Your task to perform on an android device: Search for Mexican restaurants on Maps Image 0: 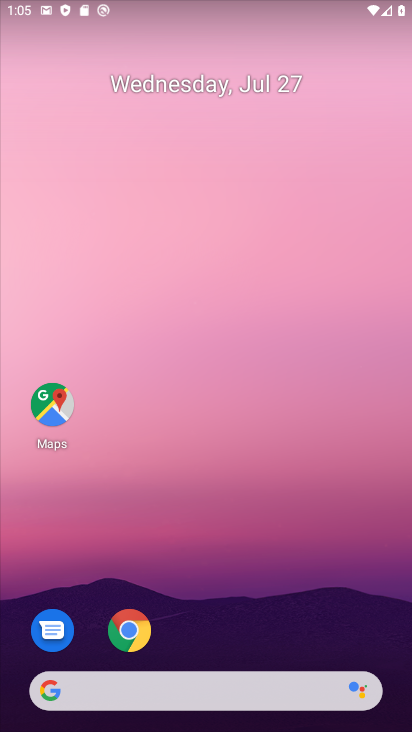
Step 0: drag from (379, 513) to (305, 70)
Your task to perform on an android device: Search for Mexican restaurants on Maps Image 1: 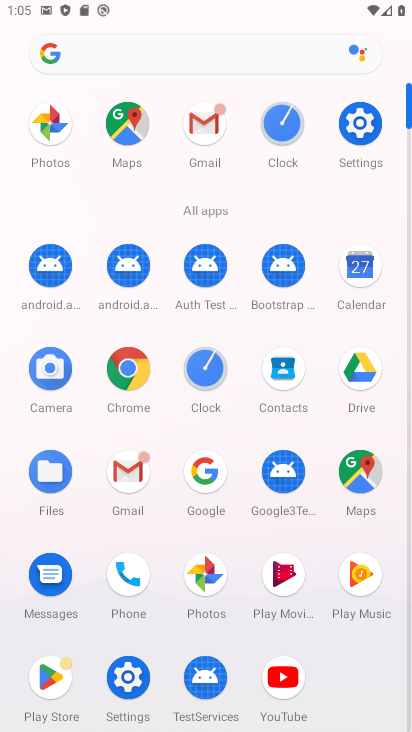
Step 1: click (367, 478)
Your task to perform on an android device: Search for Mexican restaurants on Maps Image 2: 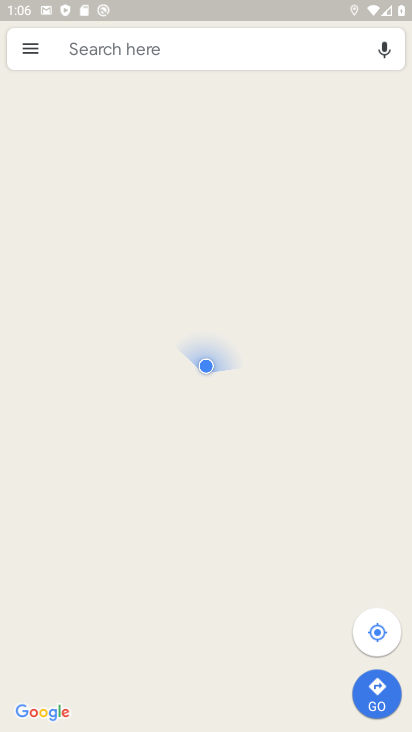
Step 2: click (89, 48)
Your task to perform on an android device: Search for Mexican restaurants on Maps Image 3: 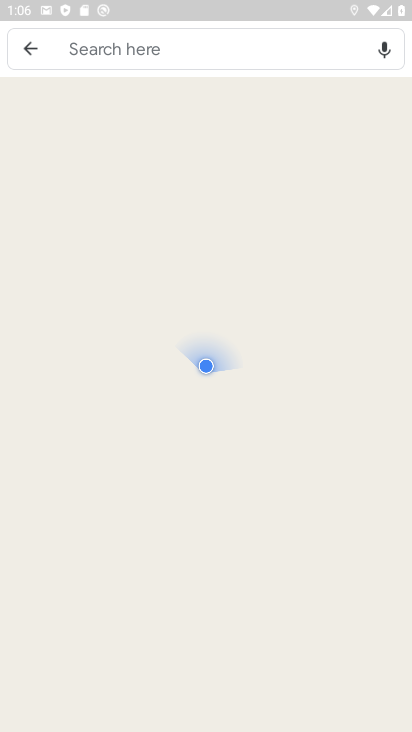
Step 3: click (123, 43)
Your task to perform on an android device: Search for Mexican restaurants on Maps Image 4: 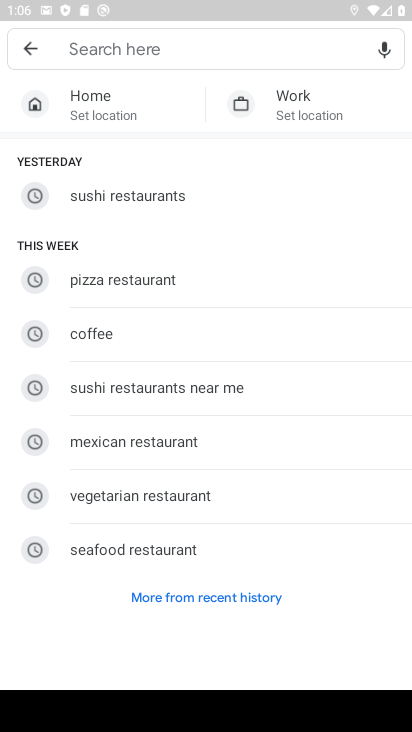
Step 4: type "Mexican restaurants"
Your task to perform on an android device: Search for Mexican restaurants on Maps Image 5: 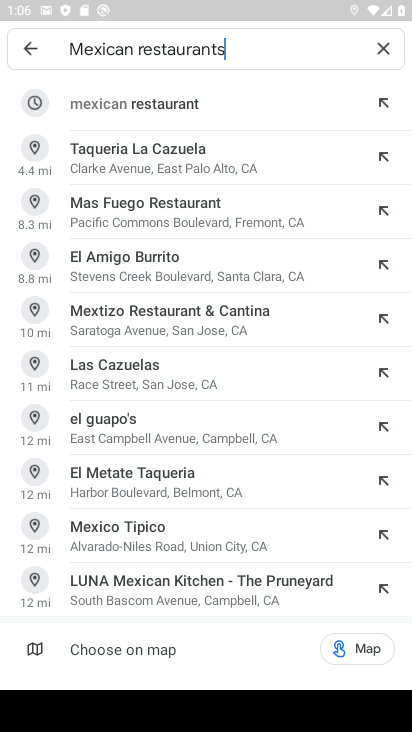
Step 5: click (76, 96)
Your task to perform on an android device: Search for Mexican restaurants on Maps Image 6: 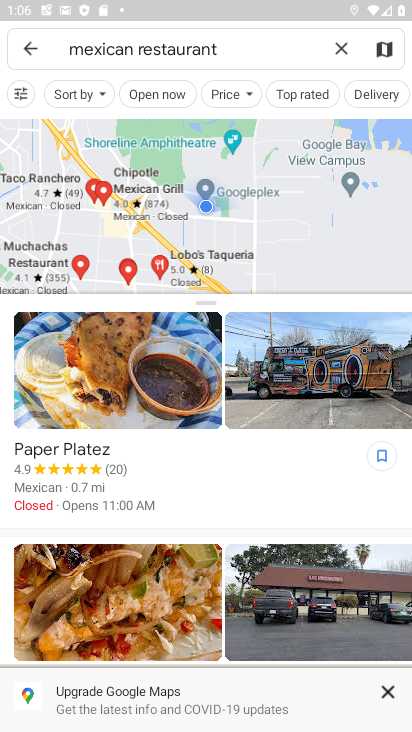
Step 6: task complete